Your task to perform on an android device: turn vacation reply on in the gmail app Image 0: 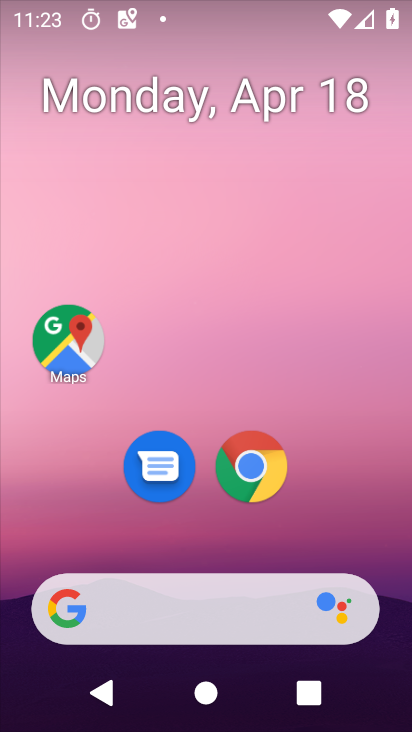
Step 0: drag from (288, 545) to (227, 238)
Your task to perform on an android device: turn vacation reply on in the gmail app Image 1: 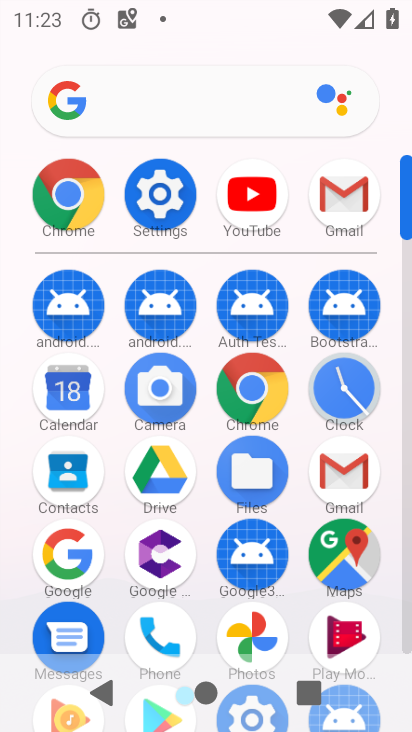
Step 1: click (409, 423)
Your task to perform on an android device: turn vacation reply on in the gmail app Image 2: 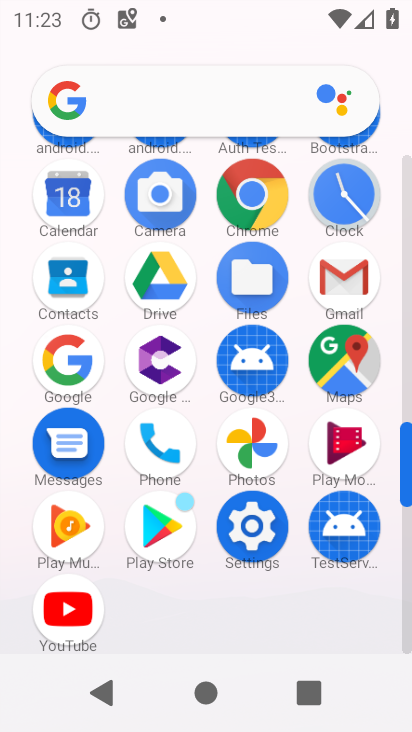
Step 2: click (350, 293)
Your task to perform on an android device: turn vacation reply on in the gmail app Image 3: 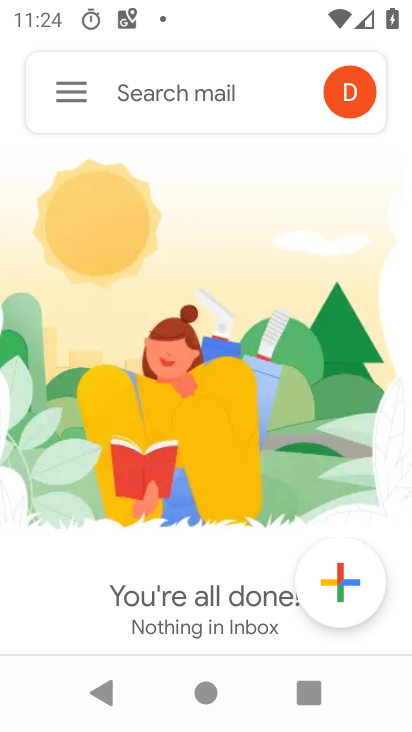
Step 3: click (90, 101)
Your task to perform on an android device: turn vacation reply on in the gmail app Image 4: 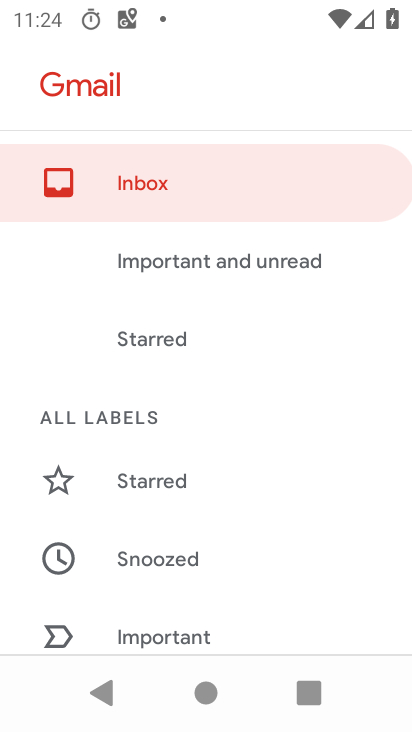
Step 4: click (91, 102)
Your task to perform on an android device: turn vacation reply on in the gmail app Image 5: 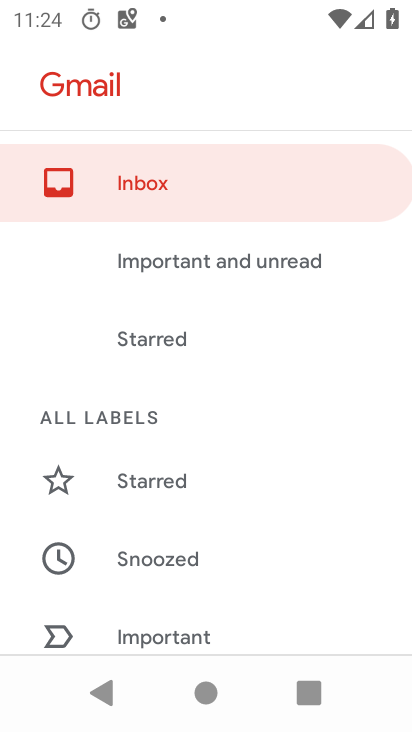
Step 5: drag from (167, 374) to (165, 274)
Your task to perform on an android device: turn vacation reply on in the gmail app Image 6: 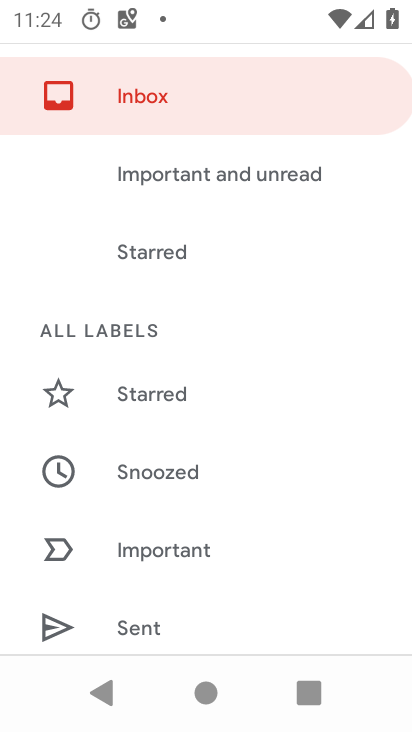
Step 6: drag from (147, 555) to (139, 458)
Your task to perform on an android device: turn vacation reply on in the gmail app Image 7: 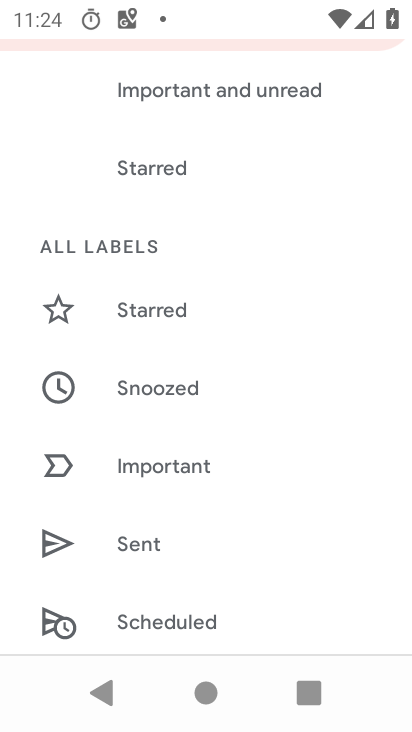
Step 7: drag from (140, 564) to (145, 183)
Your task to perform on an android device: turn vacation reply on in the gmail app Image 8: 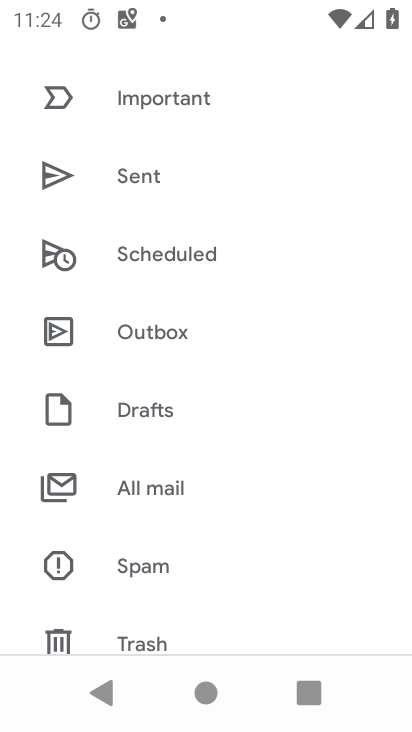
Step 8: drag from (191, 416) to (168, 103)
Your task to perform on an android device: turn vacation reply on in the gmail app Image 9: 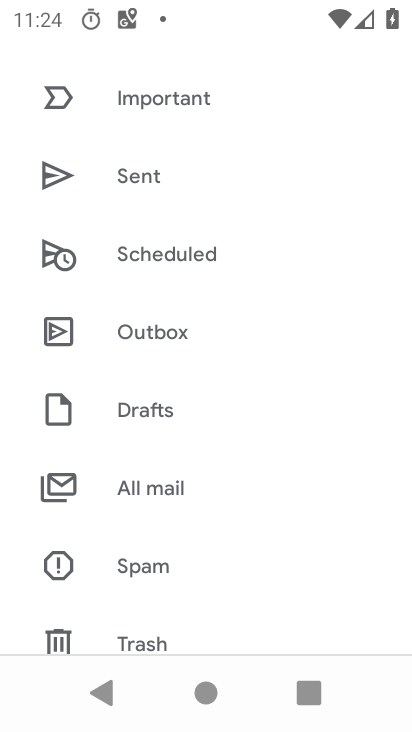
Step 9: drag from (211, 440) to (204, 110)
Your task to perform on an android device: turn vacation reply on in the gmail app Image 10: 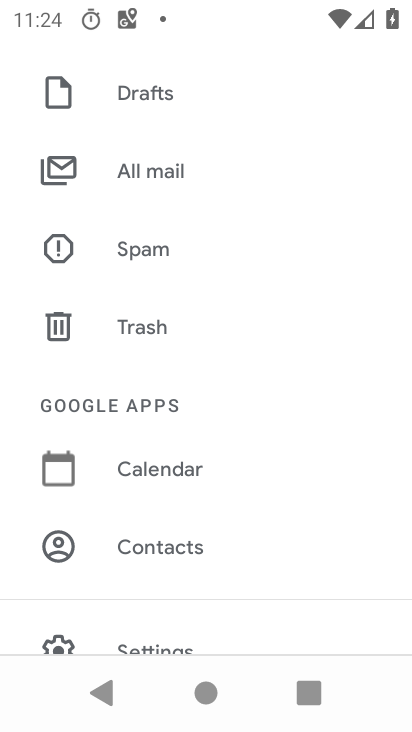
Step 10: drag from (217, 484) to (219, 181)
Your task to perform on an android device: turn vacation reply on in the gmail app Image 11: 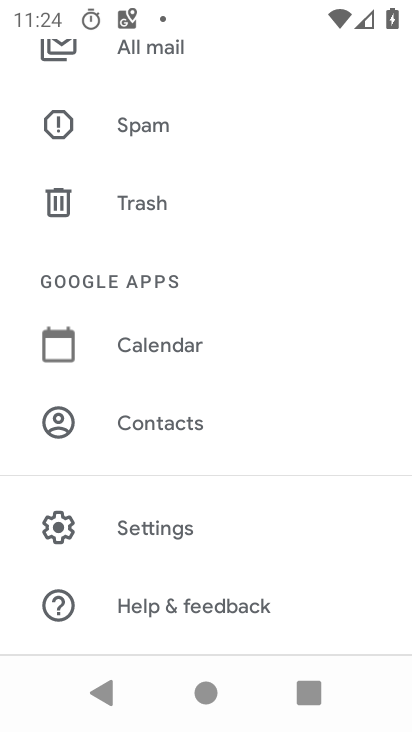
Step 11: click (216, 514)
Your task to perform on an android device: turn vacation reply on in the gmail app Image 12: 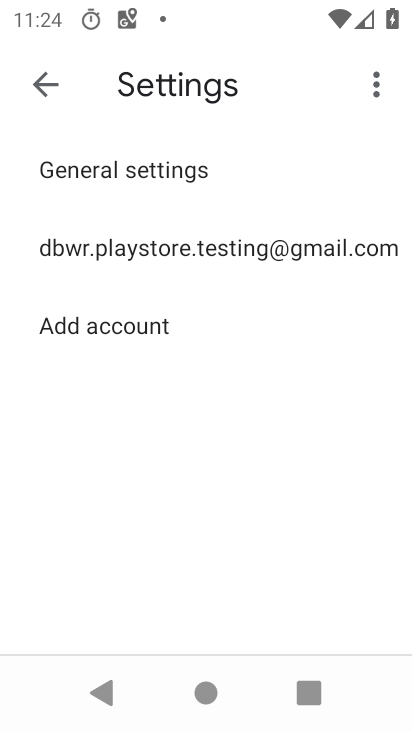
Step 12: click (248, 254)
Your task to perform on an android device: turn vacation reply on in the gmail app Image 13: 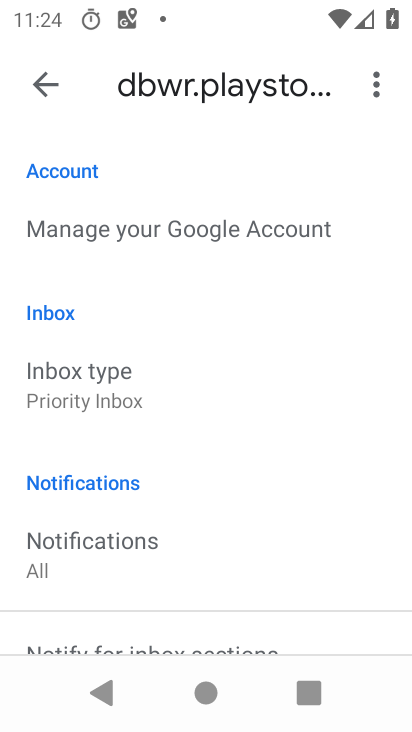
Step 13: click (409, 422)
Your task to perform on an android device: turn vacation reply on in the gmail app Image 14: 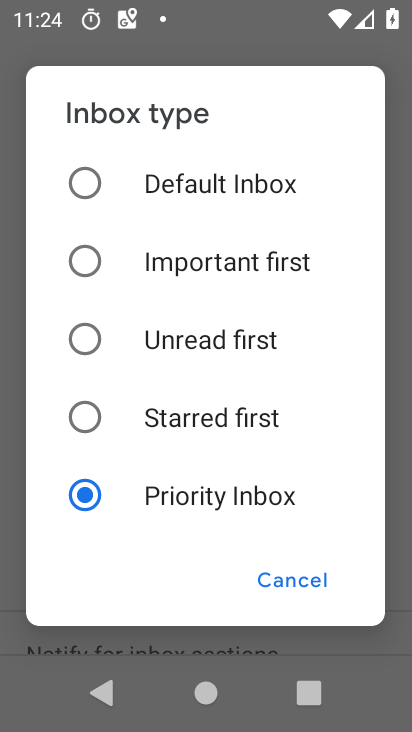
Step 14: click (293, 578)
Your task to perform on an android device: turn vacation reply on in the gmail app Image 15: 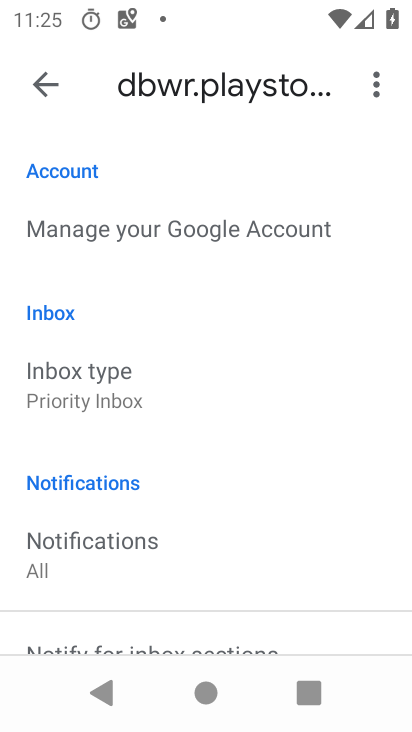
Step 15: drag from (295, 630) to (178, 235)
Your task to perform on an android device: turn vacation reply on in the gmail app Image 16: 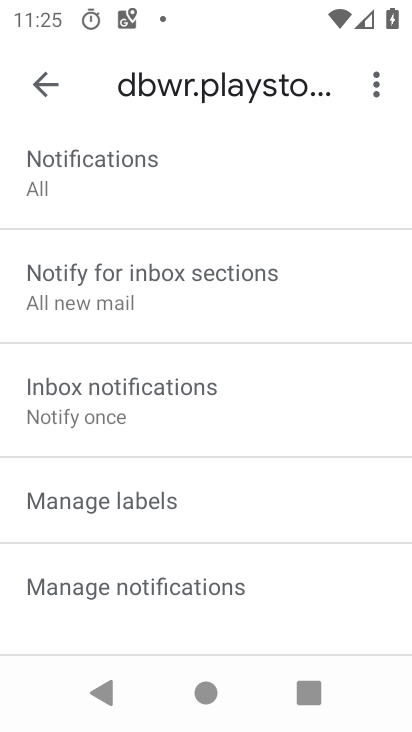
Step 16: drag from (189, 456) to (174, 170)
Your task to perform on an android device: turn vacation reply on in the gmail app Image 17: 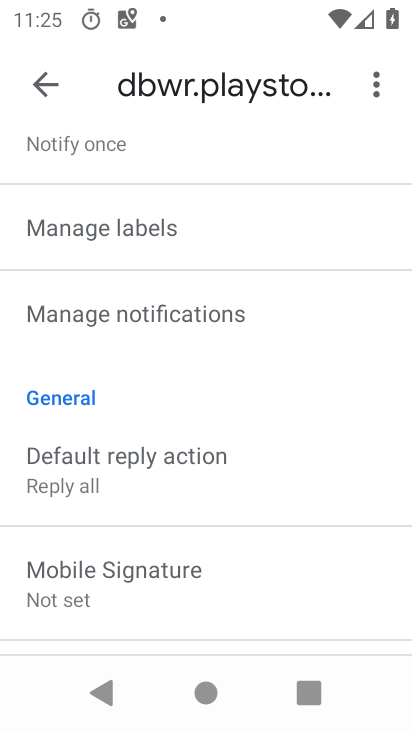
Step 17: drag from (181, 502) to (158, 232)
Your task to perform on an android device: turn vacation reply on in the gmail app Image 18: 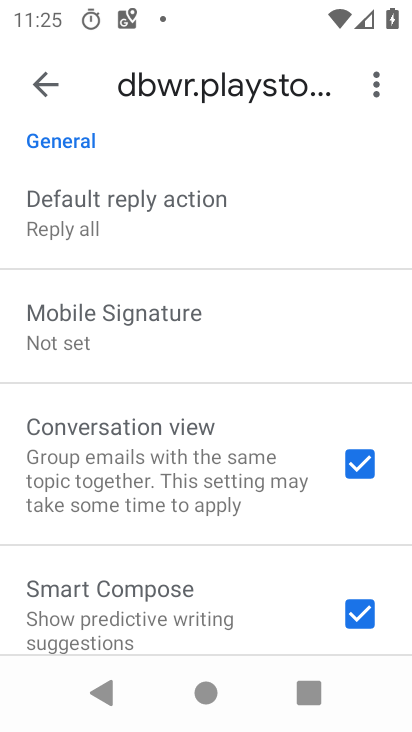
Step 18: drag from (173, 428) to (164, 280)
Your task to perform on an android device: turn vacation reply on in the gmail app Image 19: 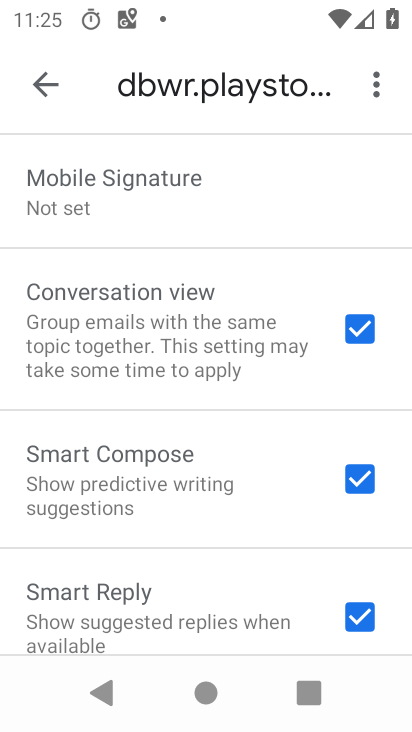
Step 19: drag from (132, 423) to (117, 264)
Your task to perform on an android device: turn vacation reply on in the gmail app Image 20: 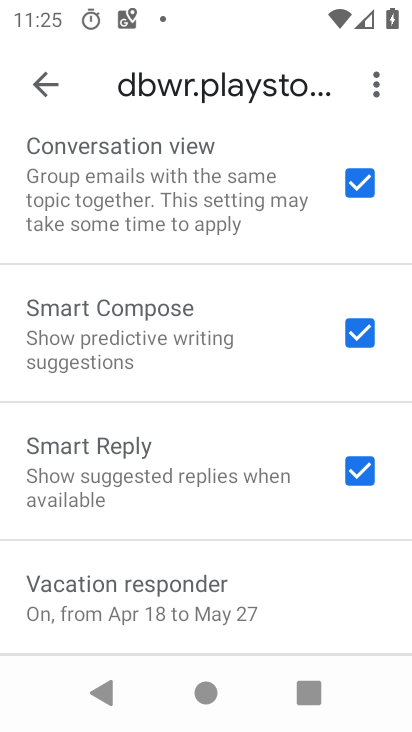
Step 20: click (120, 594)
Your task to perform on an android device: turn vacation reply on in the gmail app Image 21: 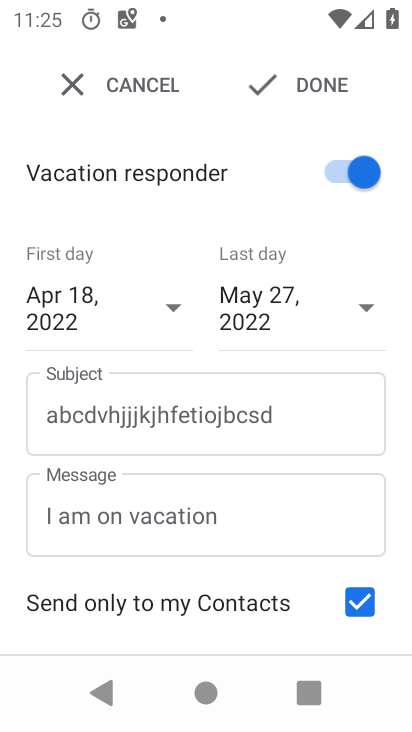
Step 21: task complete